Your task to perform on an android device: empty trash in google photos Image 0: 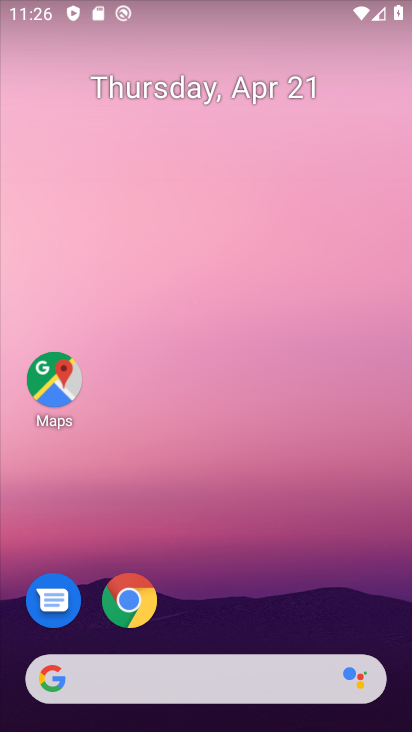
Step 0: drag from (263, 586) to (224, 69)
Your task to perform on an android device: empty trash in google photos Image 1: 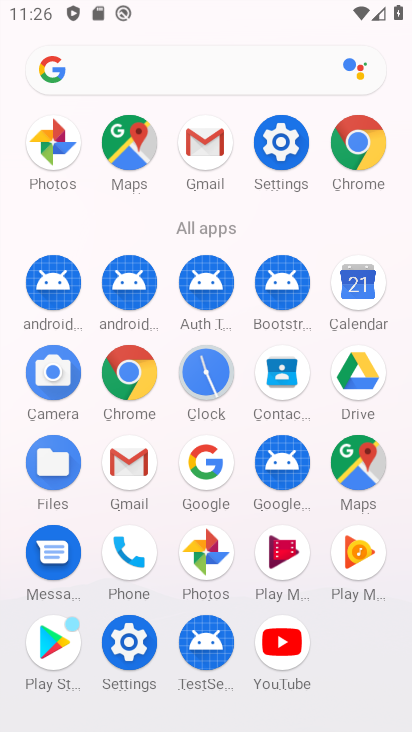
Step 1: click (219, 159)
Your task to perform on an android device: empty trash in google photos Image 2: 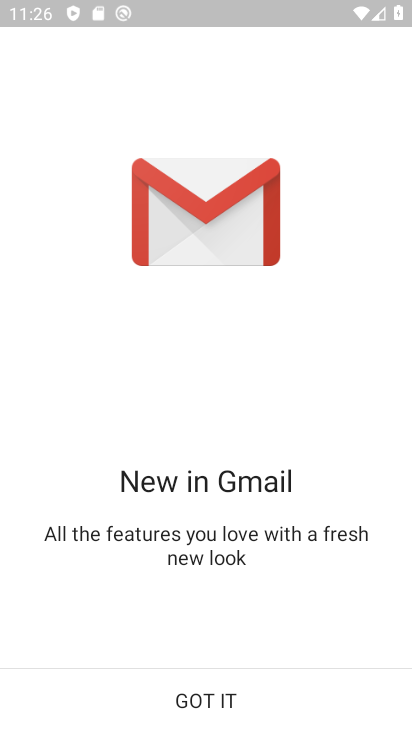
Step 2: click (199, 711)
Your task to perform on an android device: empty trash in google photos Image 3: 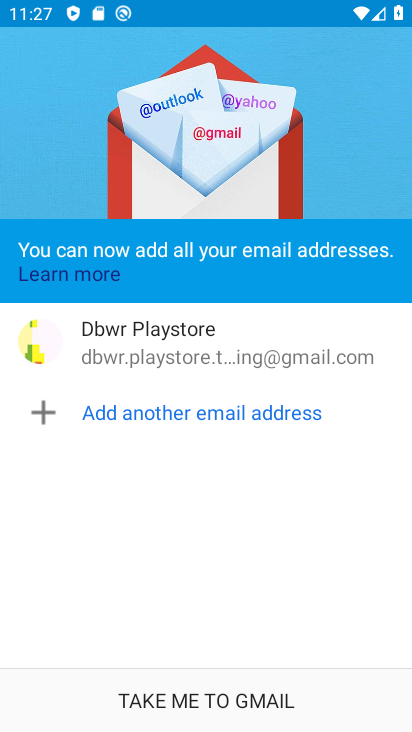
Step 3: click (198, 691)
Your task to perform on an android device: empty trash in google photos Image 4: 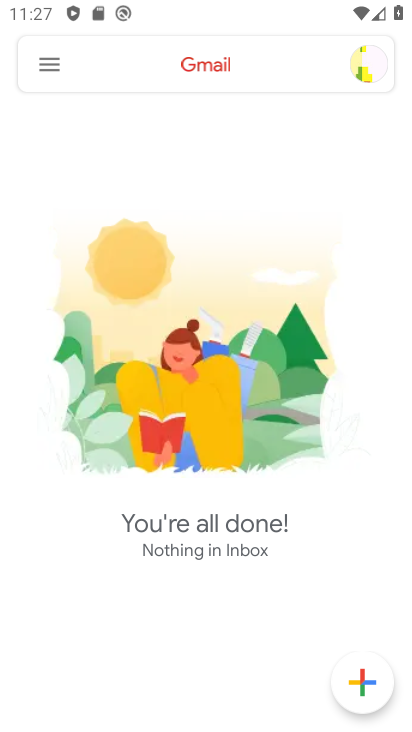
Step 4: click (59, 63)
Your task to perform on an android device: empty trash in google photos Image 5: 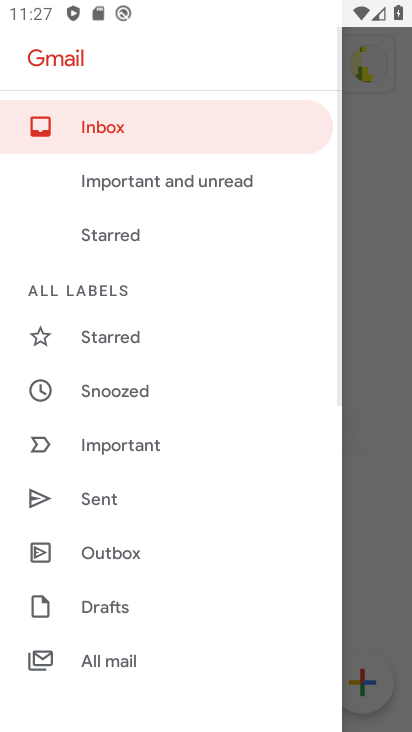
Step 5: drag from (189, 645) to (127, 296)
Your task to perform on an android device: empty trash in google photos Image 6: 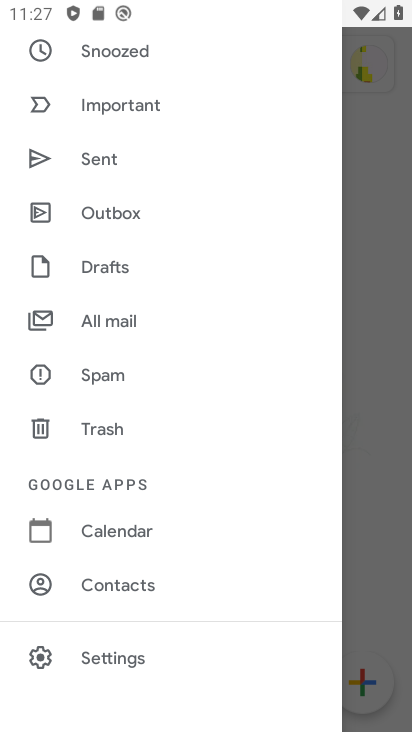
Step 6: click (114, 437)
Your task to perform on an android device: empty trash in google photos Image 7: 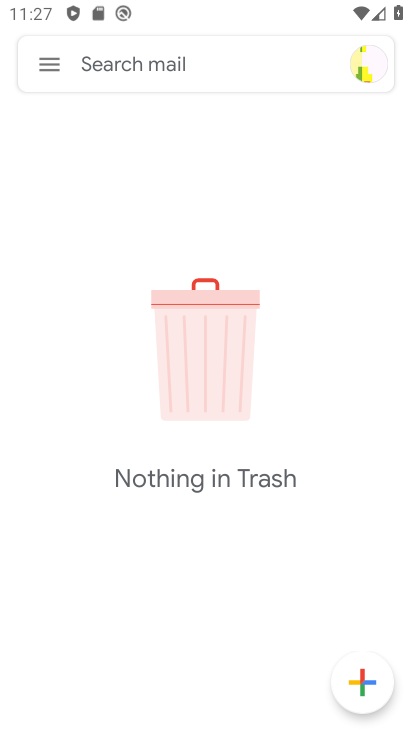
Step 7: task complete